Your task to perform on an android device: Search for pizza restaurants on Maps Image 0: 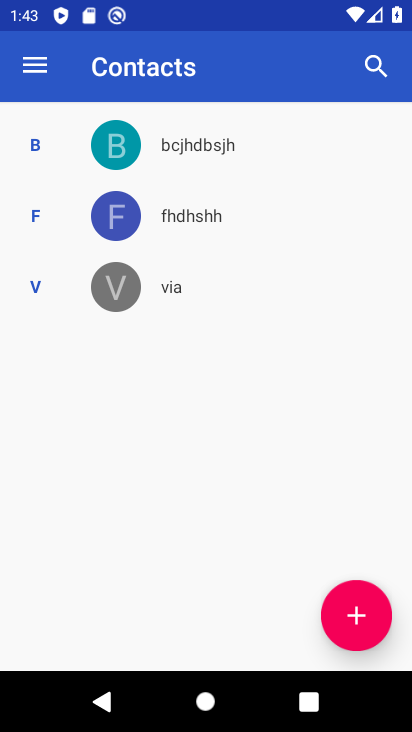
Step 0: press home button
Your task to perform on an android device: Search for pizza restaurants on Maps Image 1: 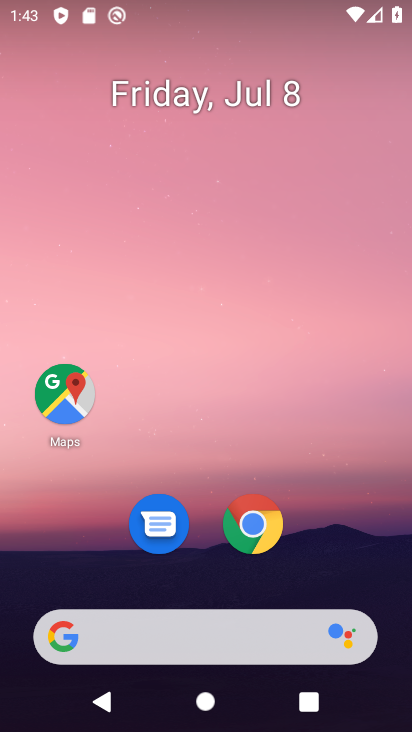
Step 1: click (57, 406)
Your task to perform on an android device: Search for pizza restaurants on Maps Image 2: 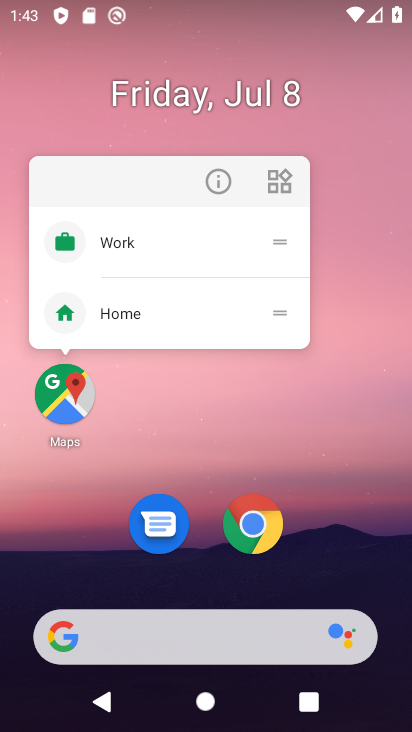
Step 2: click (51, 424)
Your task to perform on an android device: Search for pizza restaurants on Maps Image 3: 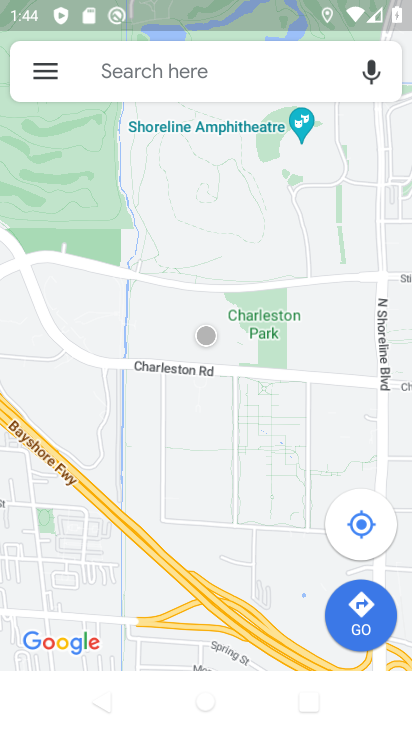
Step 3: click (136, 80)
Your task to perform on an android device: Search for pizza restaurants on Maps Image 4: 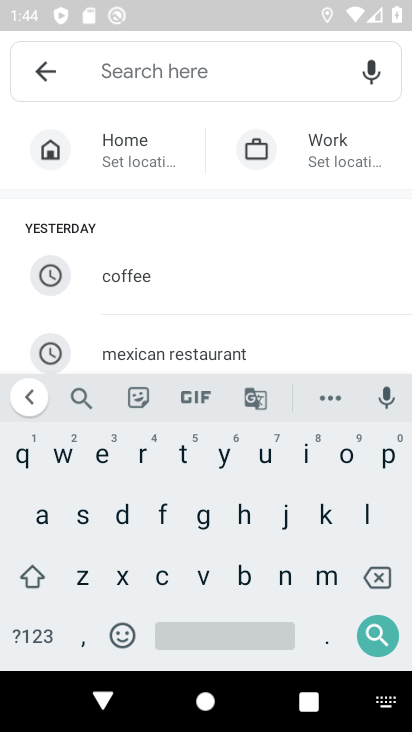
Step 4: click (387, 450)
Your task to perform on an android device: Search for pizza restaurants on Maps Image 5: 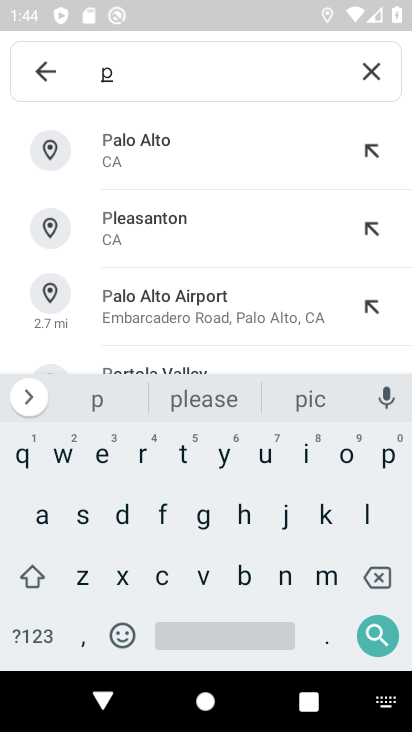
Step 5: click (305, 455)
Your task to perform on an android device: Search for pizza restaurants on Maps Image 6: 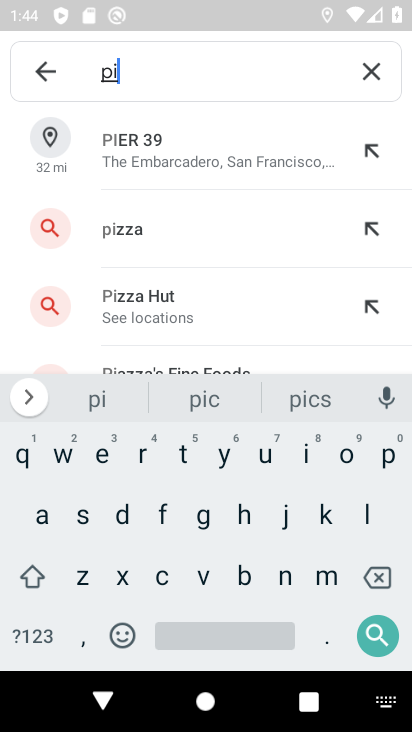
Step 6: click (175, 234)
Your task to perform on an android device: Search for pizza restaurants on Maps Image 7: 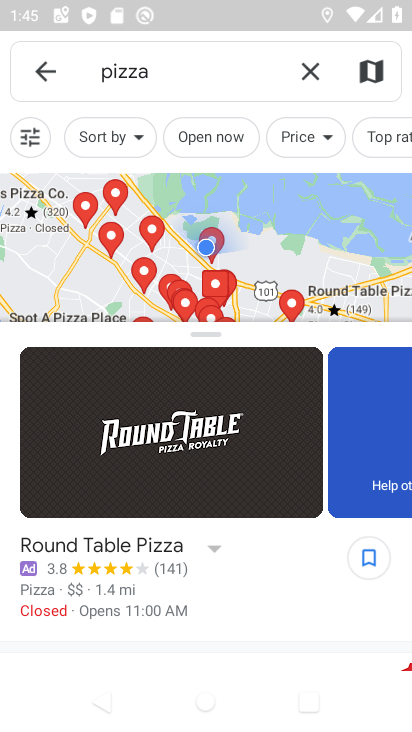
Step 7: task complete